Your task to perform on an android device: What's the news in Ecuador? Image 0: 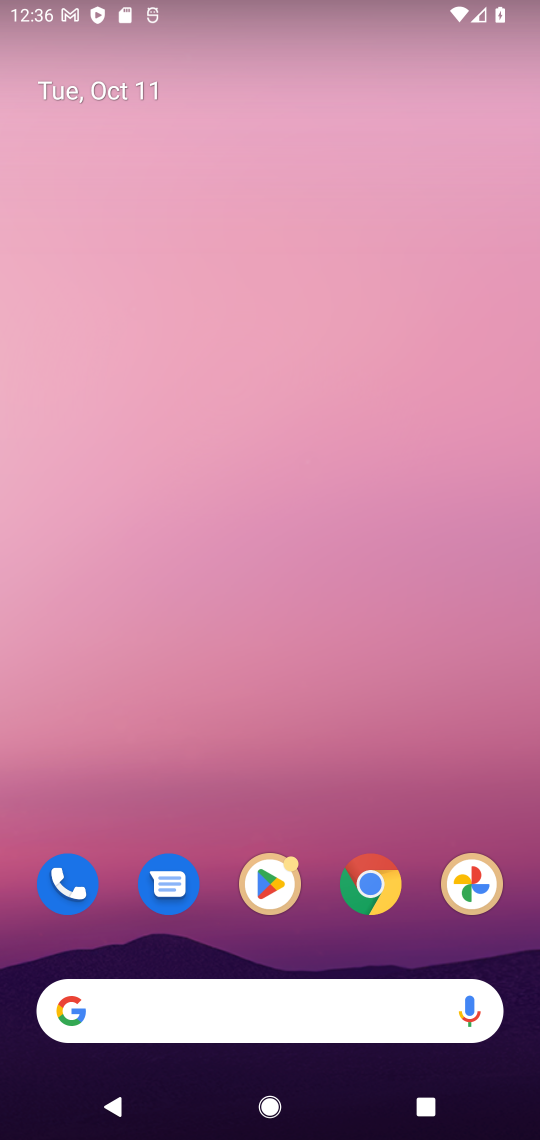
Step 0: drag from (205, 828) to (226, 390)
Your task to perform on an android device: What's the news in Ecuador? Image 1: 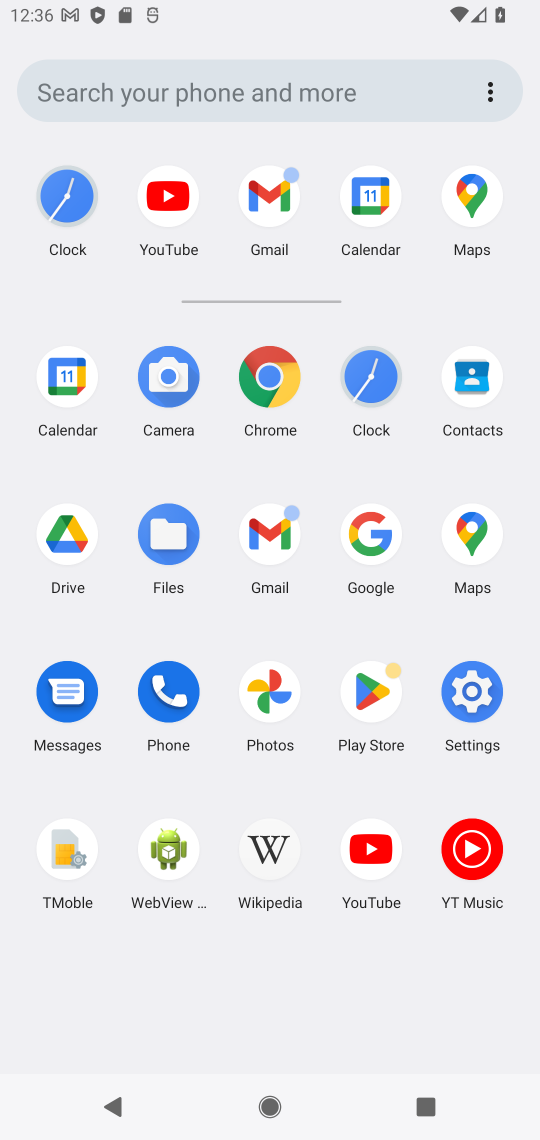
Step 1: click (344, 537)
Your task to perform on an android device: What's the news in Ecuador? Image 2: 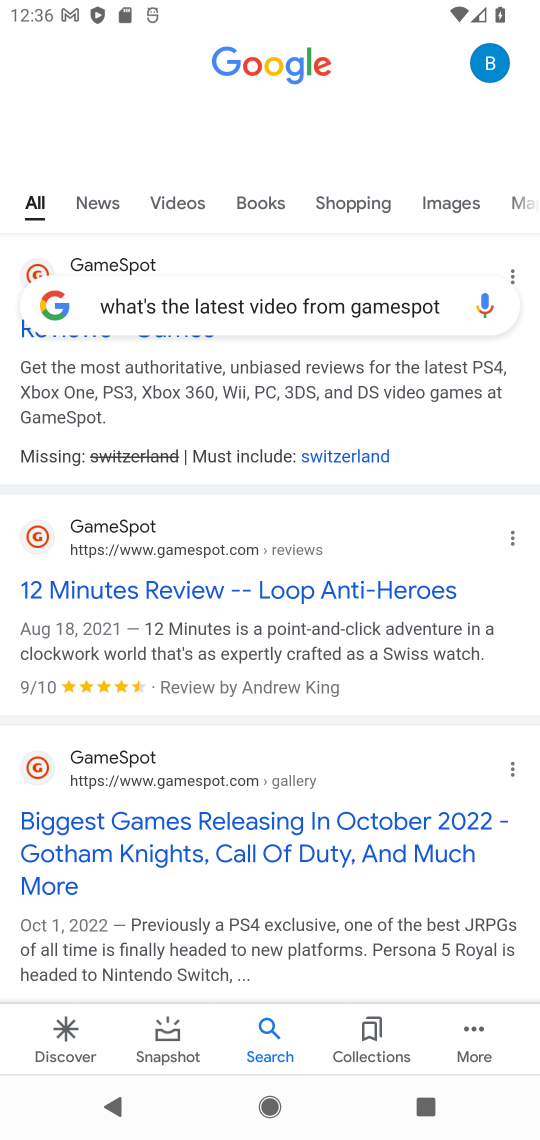
Step 2: click (263, 316)
Your task to perform on an android device: What's the news in Ecuador? Image 3: 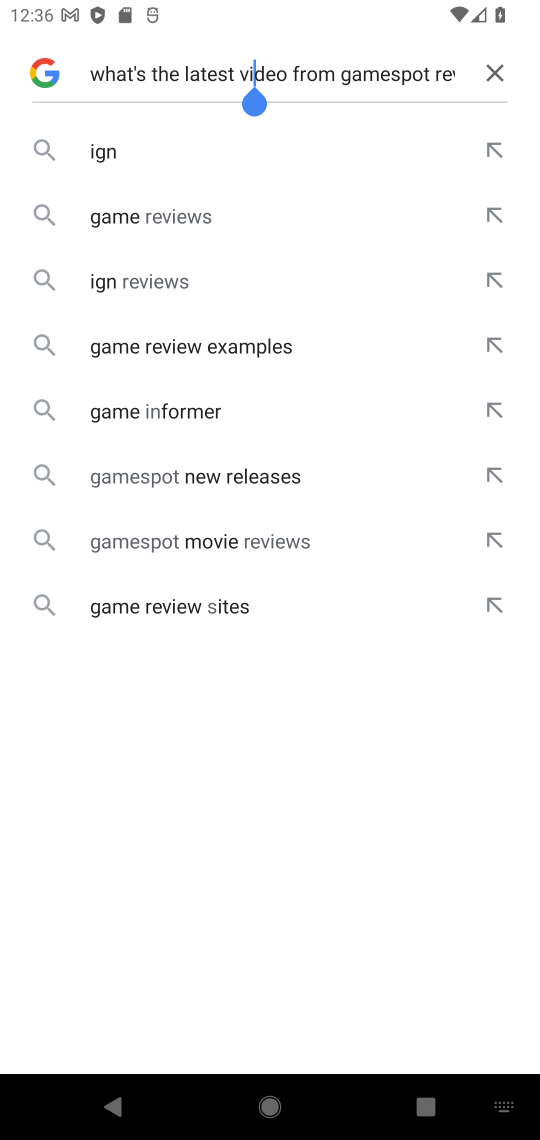
Step 3: click (480, 77)
Your task to perform on an android device: What's the news in Ecuador? Image 4: 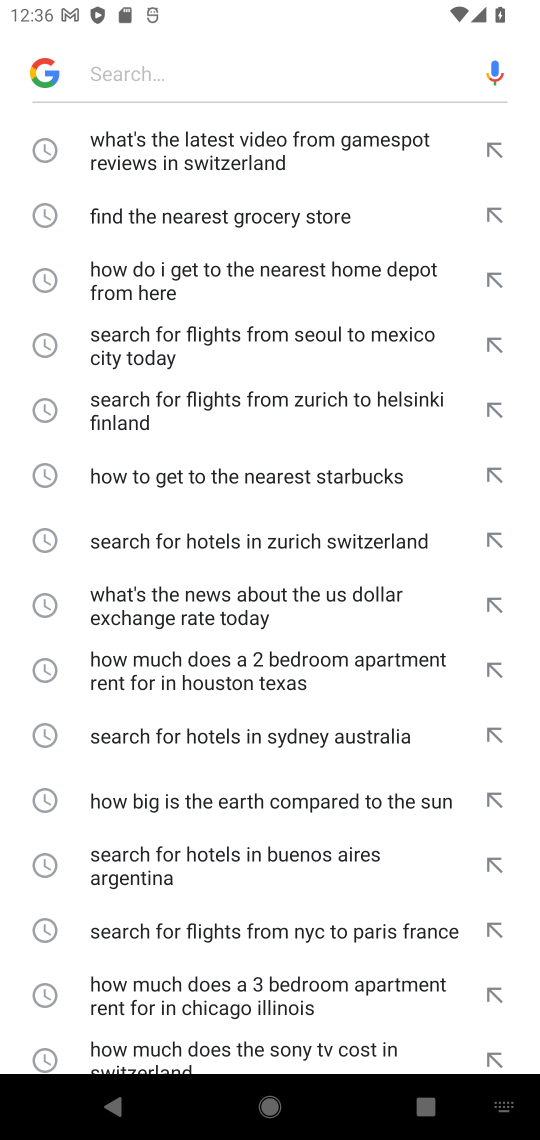
Step 4: type "What's the news in Ecuador?"
Your task to perform on an android device: What's the news in Ecuador? Image 5: 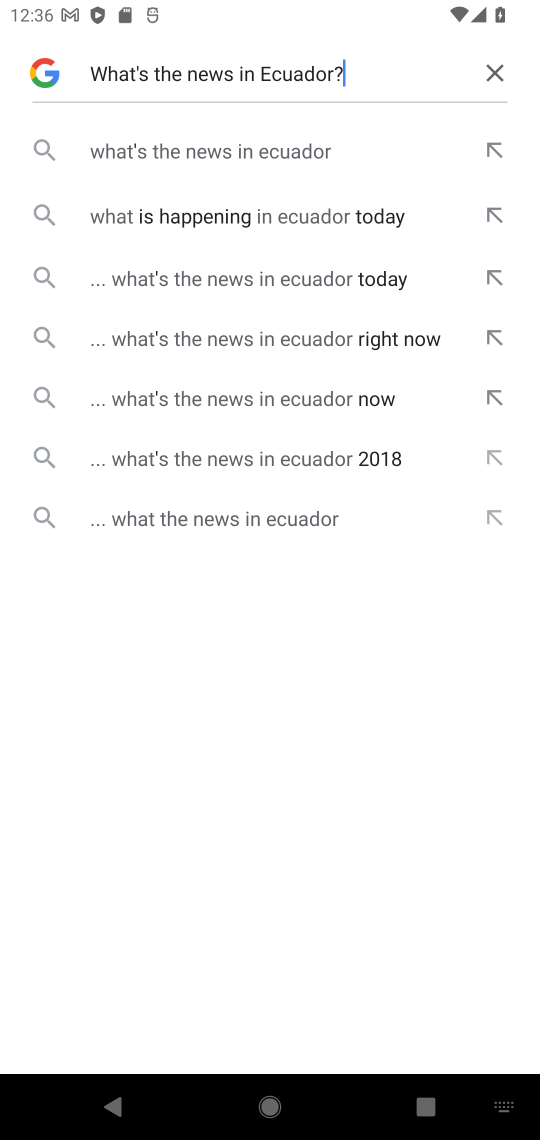
Step 5: click (154, 154)
Your task to perform on an android device: What's the news in Ecuador? Image 6: 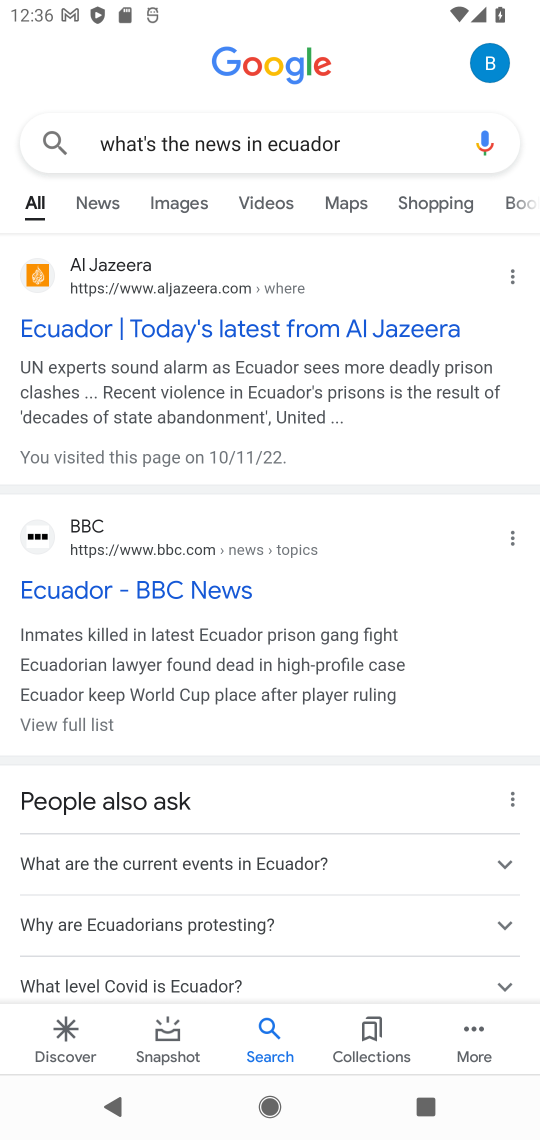
Step 6: click (128, 344)
Your task to perform on an android device: What's the news in Ecuador? Image 7: 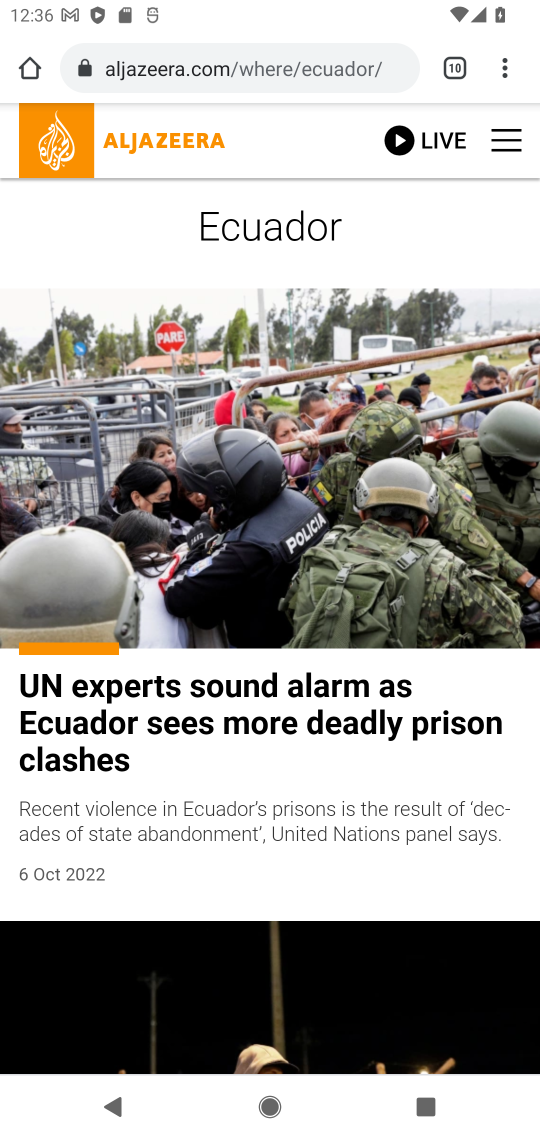
Step 7: task complete